Your task to perform on an android device: turn off javascript in the chrome app Image 0: 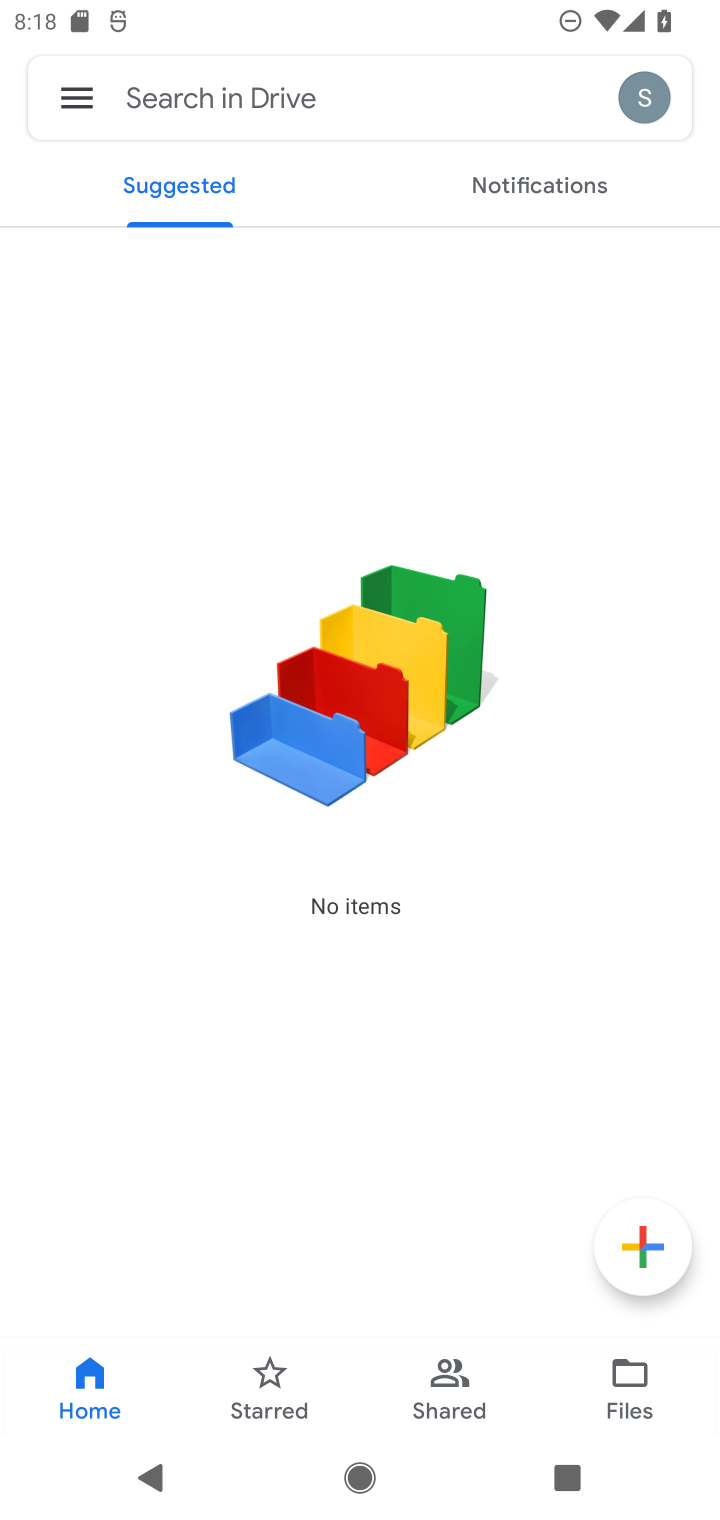
Step 0: press home button
Your task to perform on an android device: turn off javascript in the chrome app Image 1: 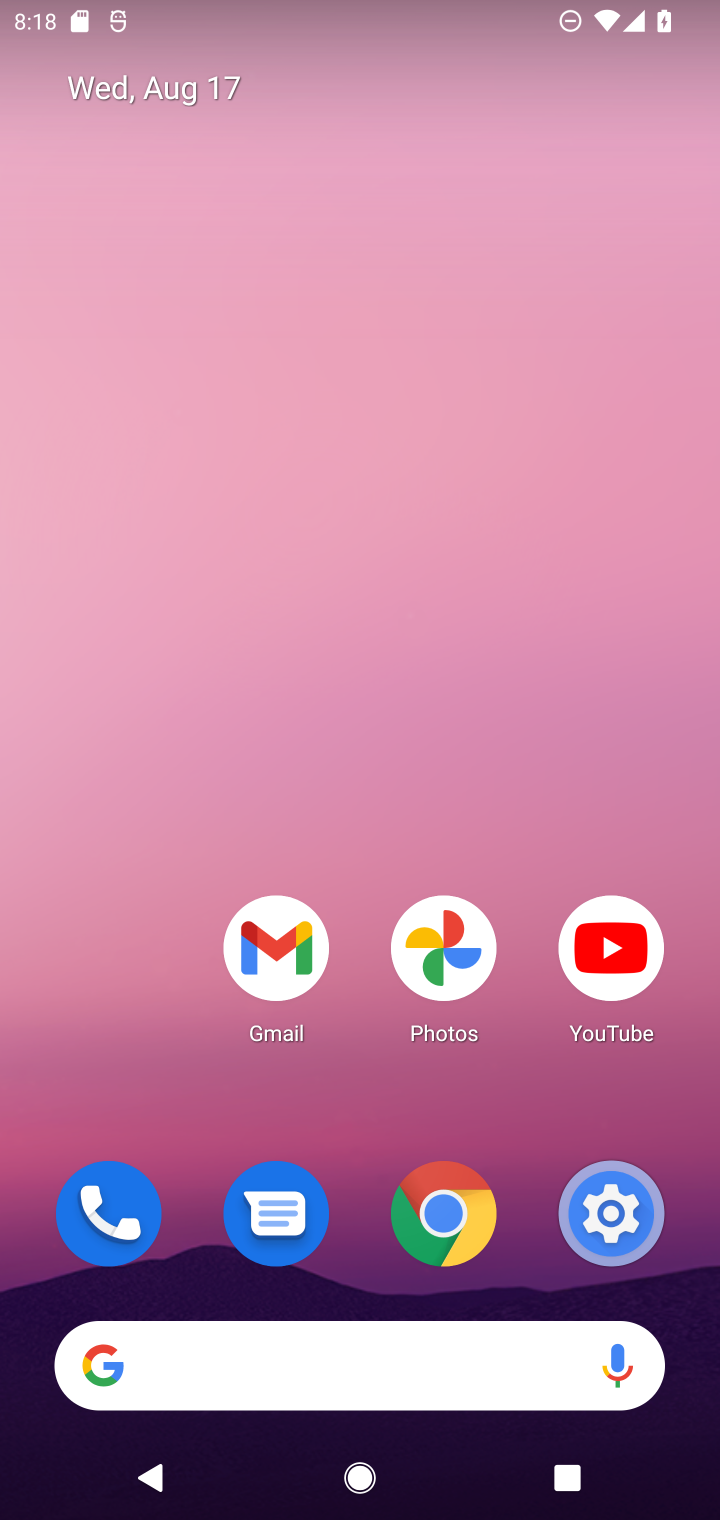
Step 1: click (448, 1222)
Your task to perform on an android device: turn off javascript in the chrome app Image 2: 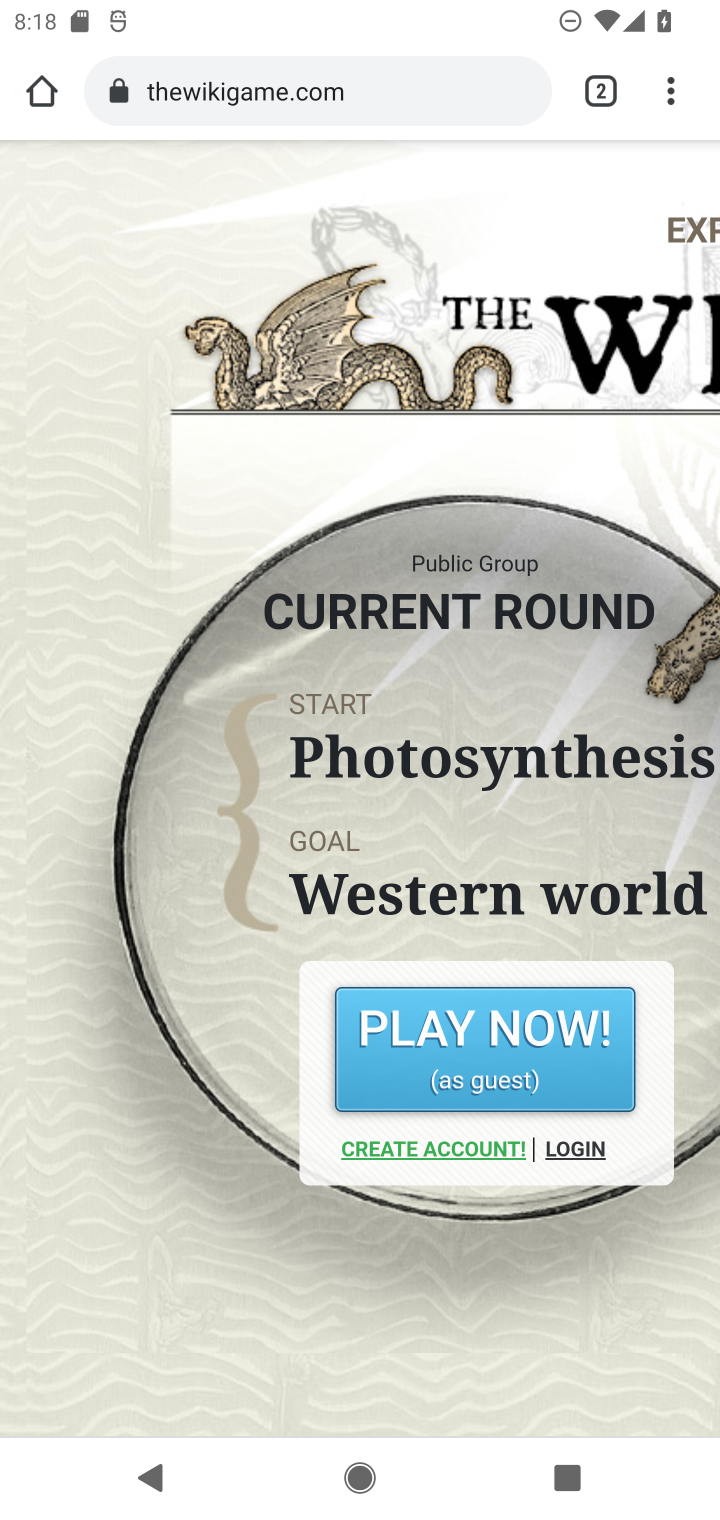
Step 2: click (676, 102)
Your task to perform on an android device: turn off javascript in the chrome app Image 3: 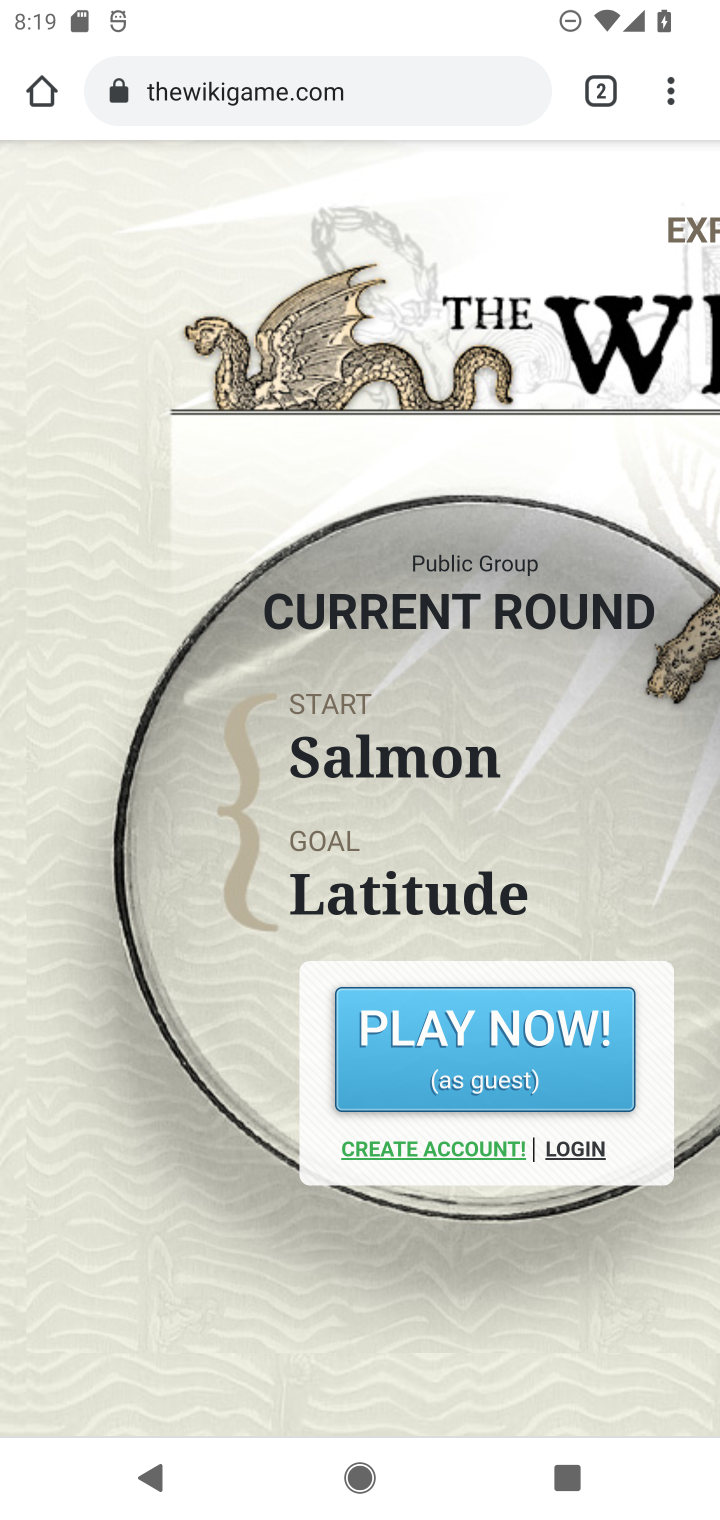
Step 3: click (676, 102)
Your task to perform on an android device: turn off javascript in the chrome app Image 4: 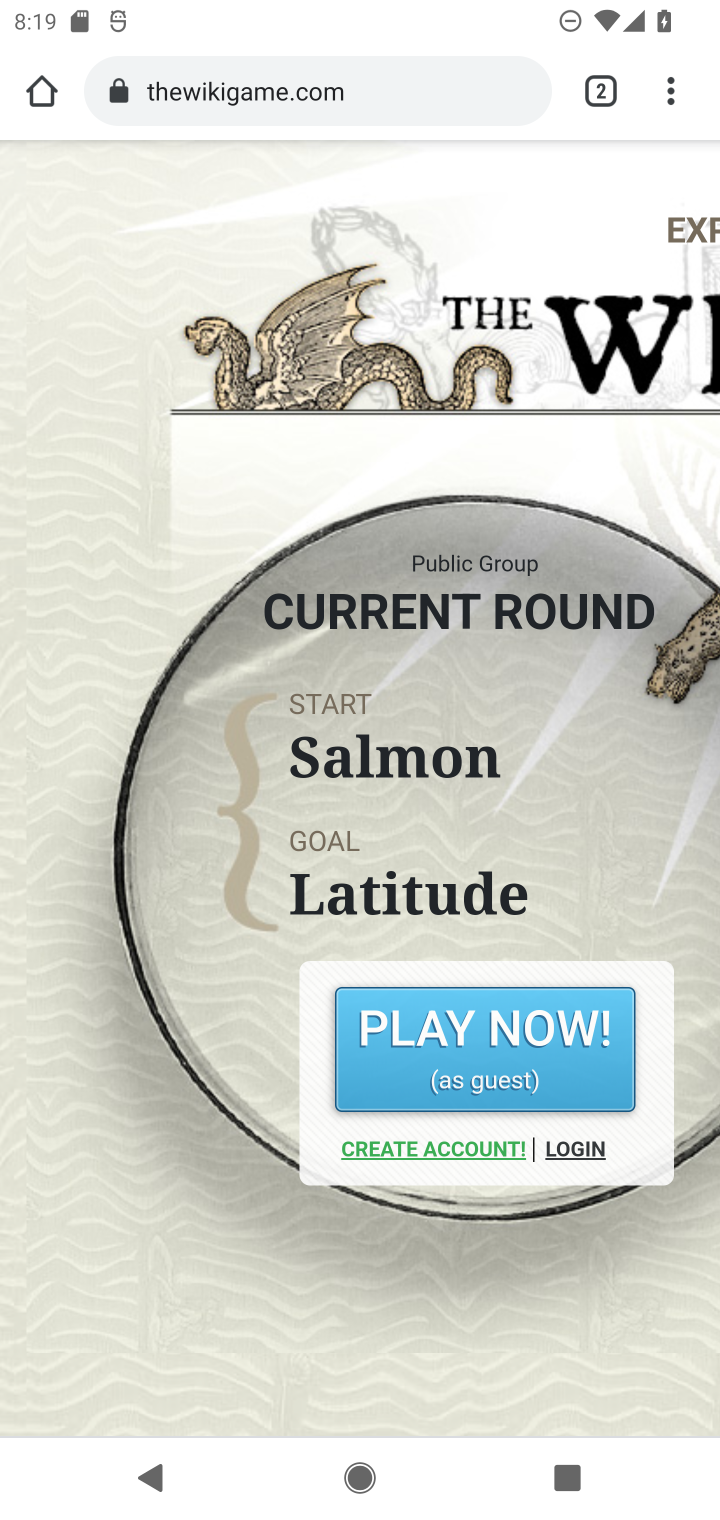
Step 4: click (676, 102)
Your task to perform on an android device: turn off javascript in the chrome app Image 5: 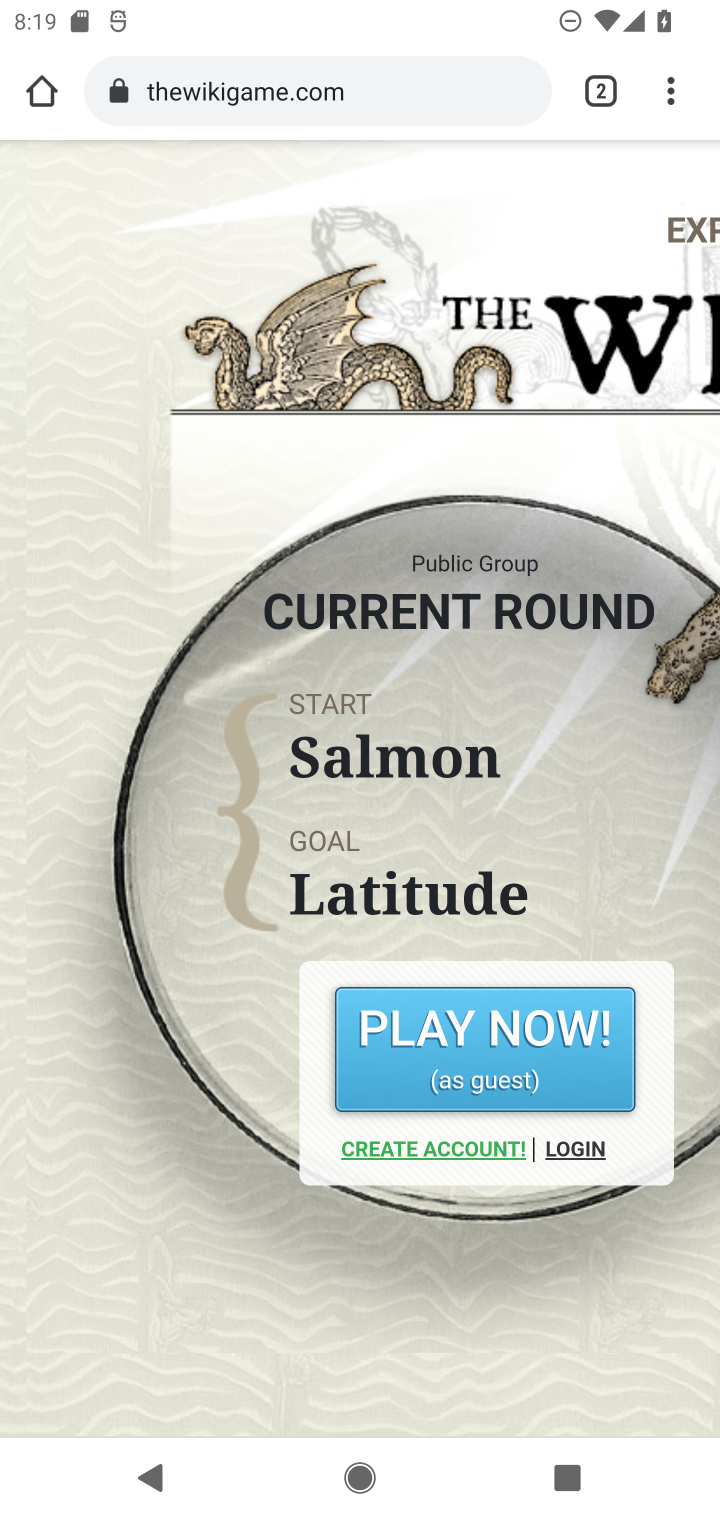
Step 5: task complete